Your task to perform on an android device: Open display settings Image 0: 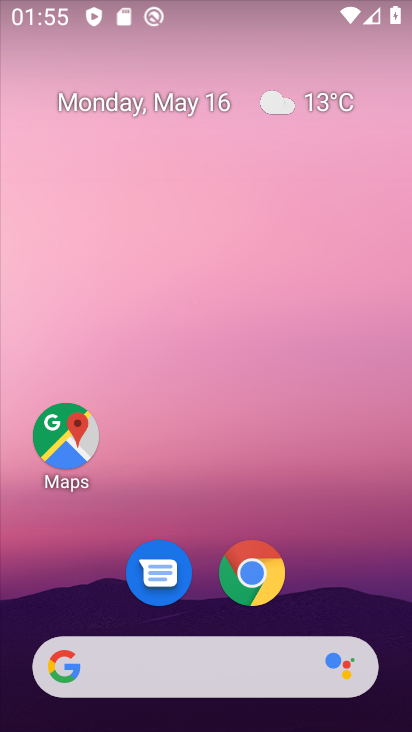
Step 0: drag from (206, 620) to (190, 155)
Your task to perform on an android device: Open display settings Image 1: 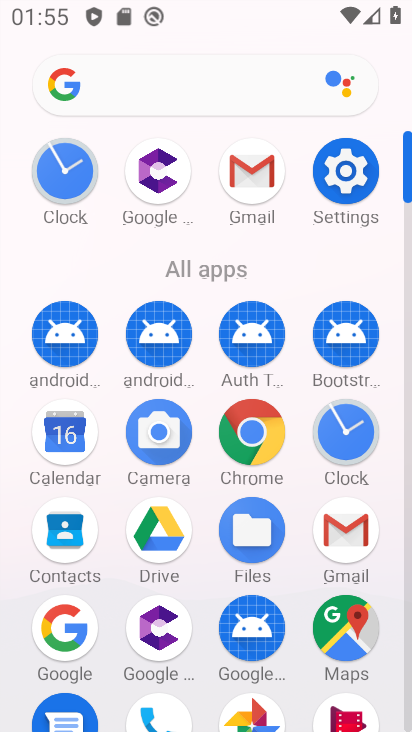
Step 1: click (355, 169)
Your task to perform on an android device: Open display settings Image 2: 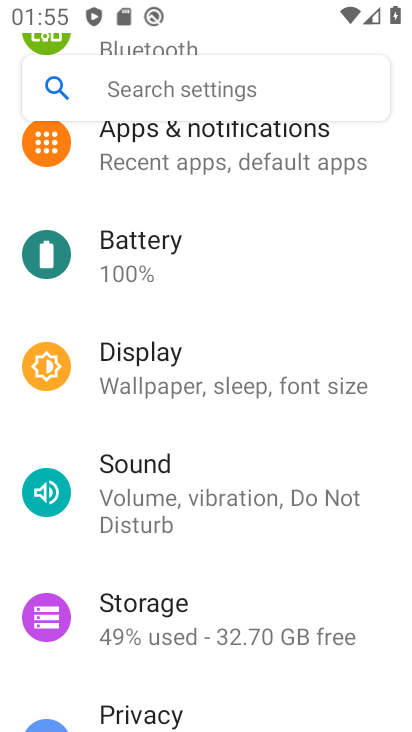
Step 2: click (119, 359)
Your task to perform on an android device: Open display settings Image 3: 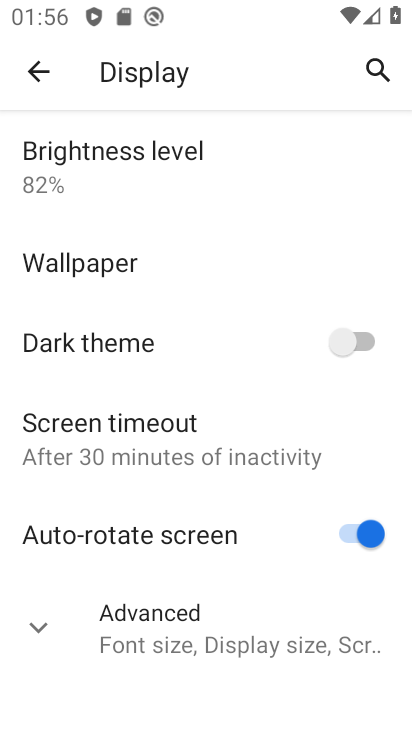
Step 3: task complete